Your task to perform on an android device: Open Google Chrome and open the bookmarks view Image 0: 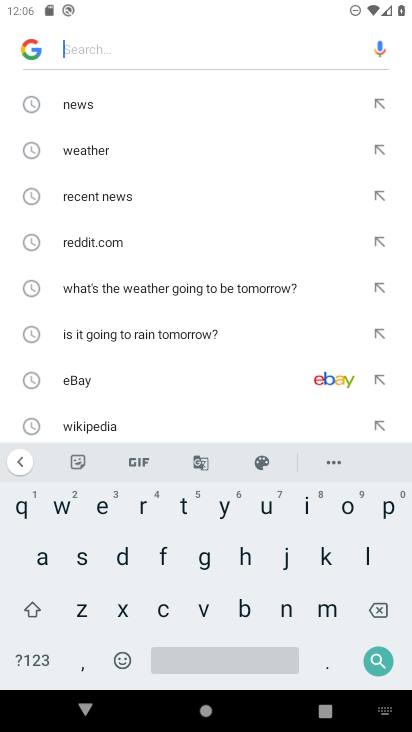
Step 0: press home button
Your task to perform on an android device: Open Google Chrome and open the bookmarks view Image 1: 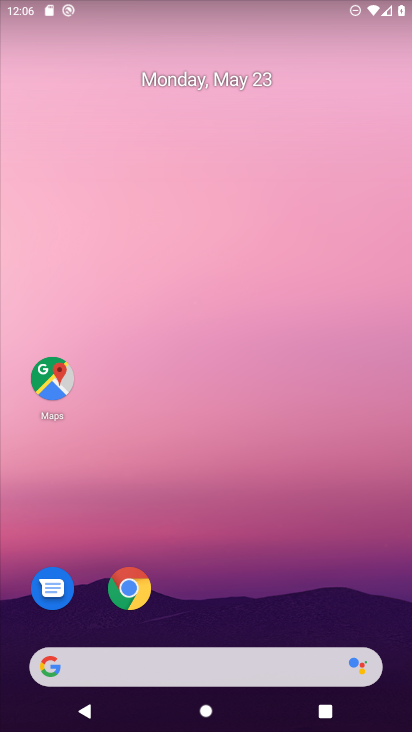
Step 1: drag from (274, 684) to (242, 166)
Your task to perform on an android device: Open Google Chrome and open the bookmarks view Image 2: 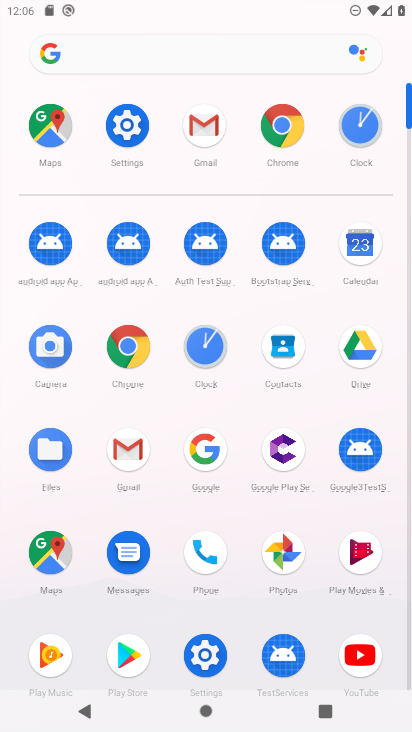
Step 2: click (272, 139)
Your task to perform on an android device: Open Google Chrome and open the bookmarks view Image 3: 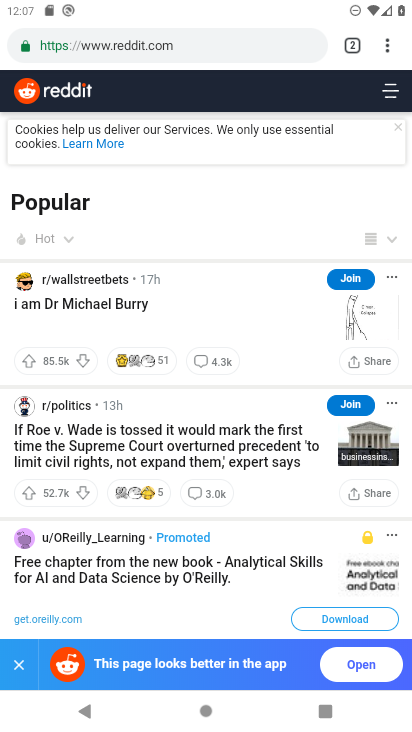
Step 3: click (384, 52)
Your task to perform on an android device: Open Google Chrome and open the bookmarks view Image 4: 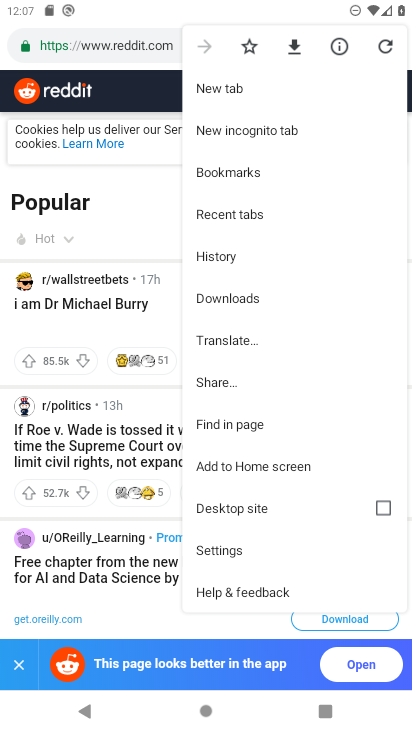
Step 4: click (237, 175)
Your task to perform on an android device: Open Google Chrome and open the bookmarks view Image 5: 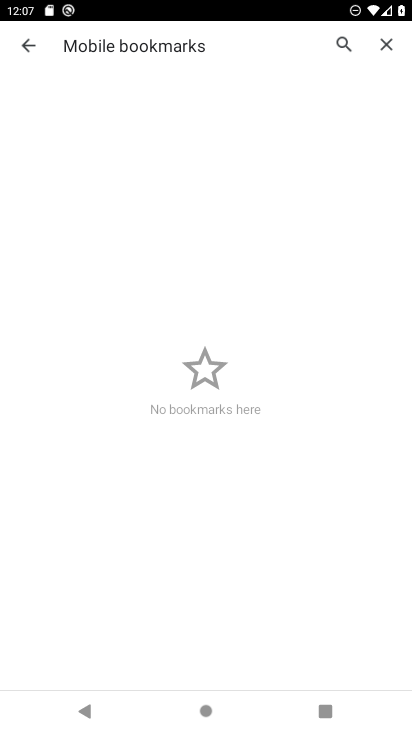
Step 5: task complete